Your task to perform on an android device: check storage Image 0: 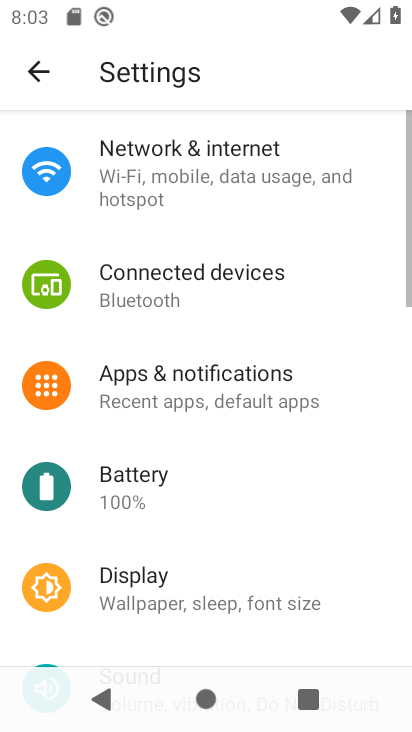
Step 0: press home button
Your task to perform on an android device: check storage Image 1: 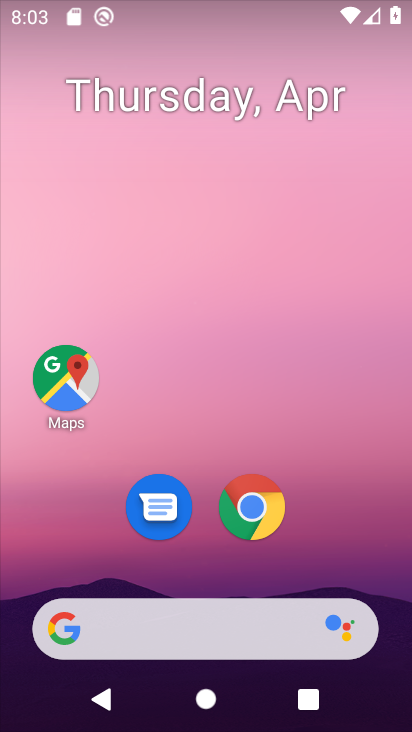
Step 1: drag from (371, 399) to (367, 133)
Your task to perform on an android device: check storage Image 2: 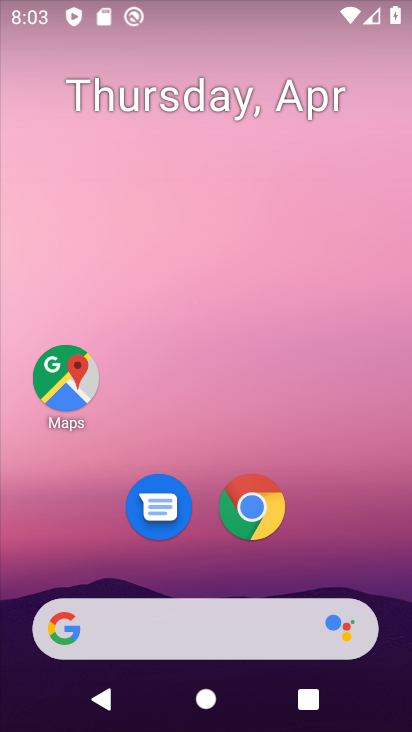
Step 2: drag from (368, 543) to (396, 106)
Your task to perform on an android device: check storage Image 3: 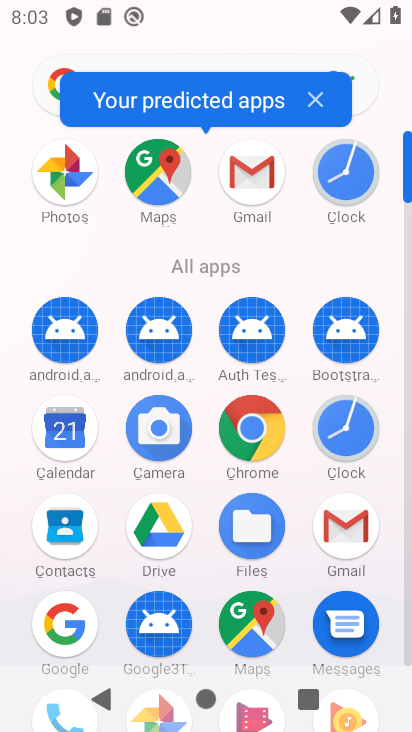
Step 3: drag from (210, 586) to (200, 253)
Your task to perform on an android device: check storage Image 4: 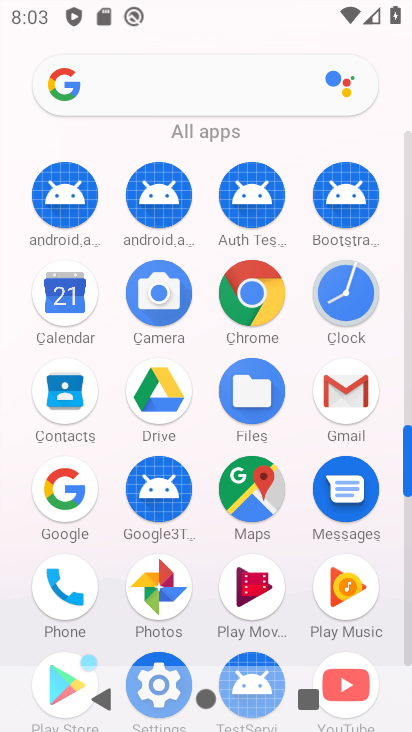
Step 4: drag from (194, 540) to (193, 329)
Your task to perform on an android device: check storage Image 5: 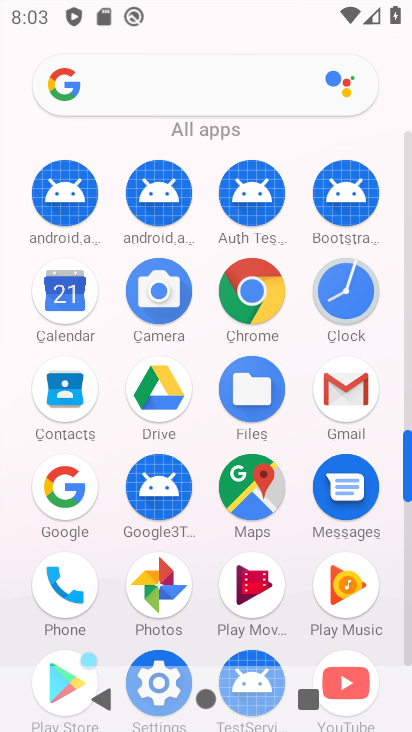
Step 5: click (174, 659)
Your task to perform on an android device: check storage Image 6: 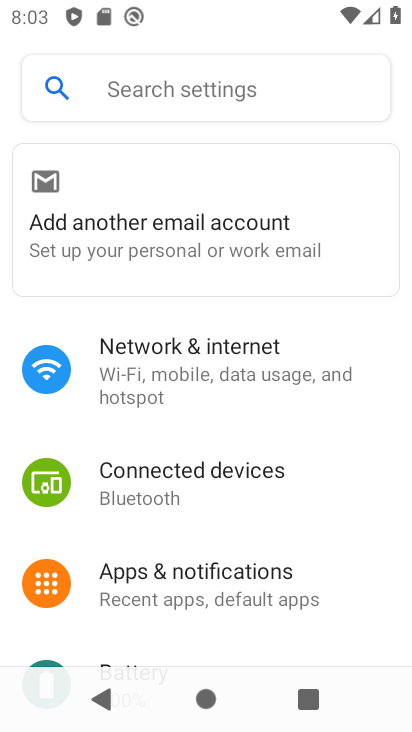
Step 6: drag from (323, 627) to (326, 262)
Your task to perform on an android device: check storage Image 7: 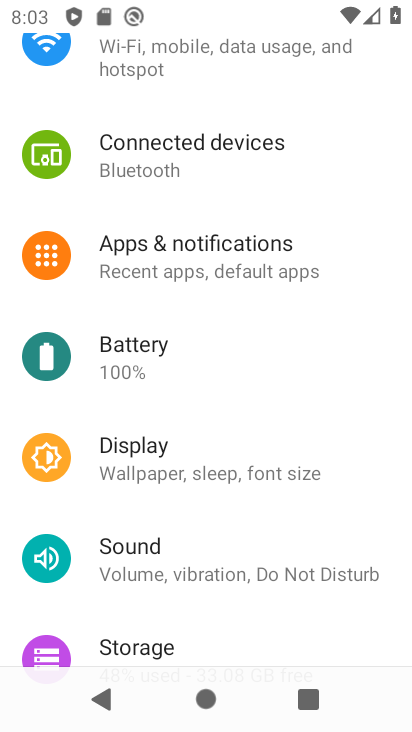
Step 7: drag from (282, 534) to (289, 294)
Your task to perform on an android device: check storage Image 8: 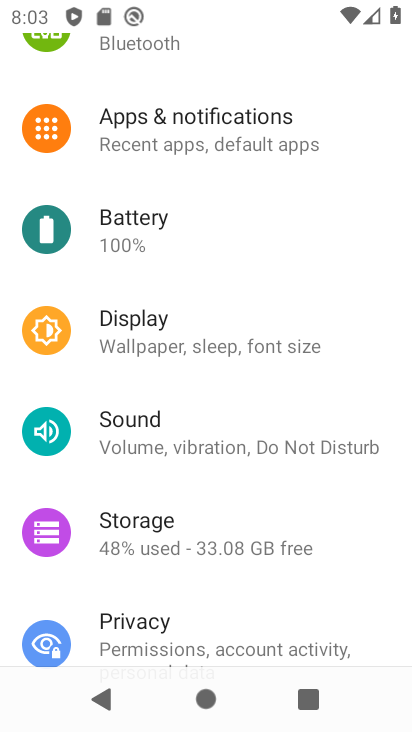
Step 8: click (146, 555)
Your task to perform on an android device: check storage Image 9: 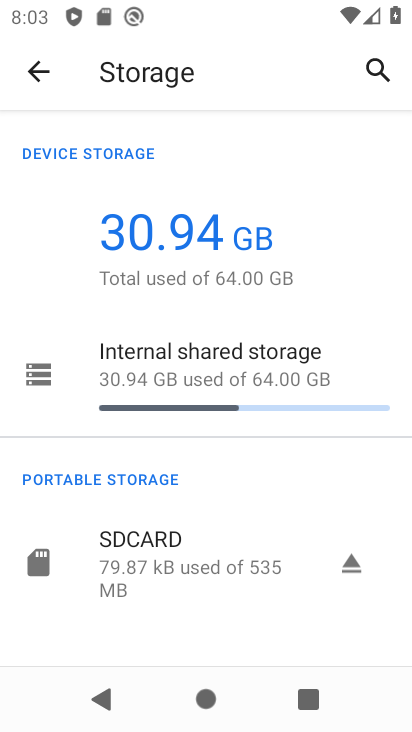
Step 9: click (47, 381)
Your task to perform on an android device: check storage Image 10: 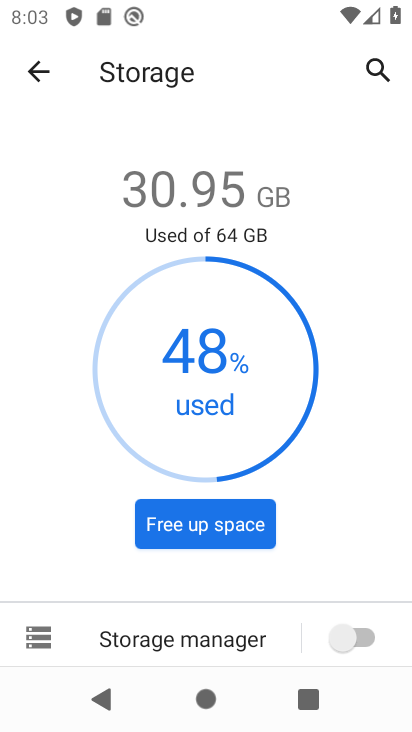
Step 10: click (38, 636)
Your task to perform on an android device: check storage Image 11: 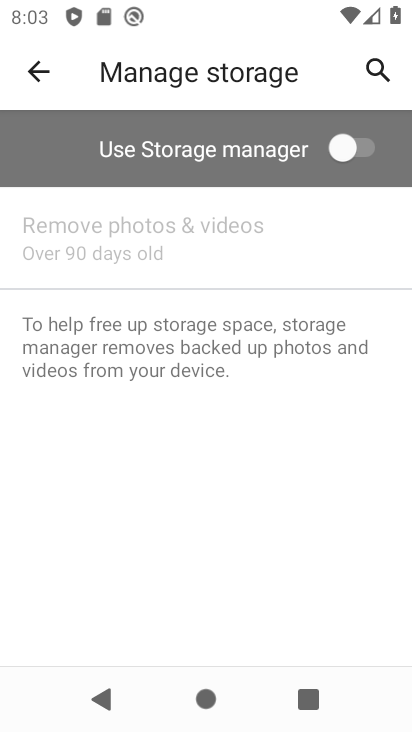
Step 11: task complete